Your task to perform on an android device: change the clock display to show seconds Image 0: 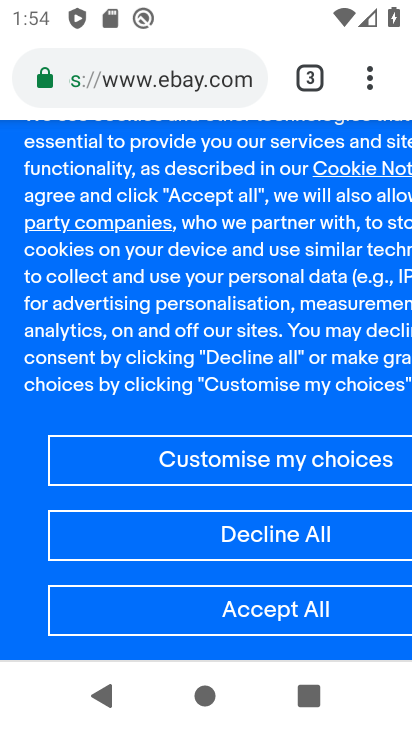
Step 0: press home button
Your task to perform on an android device: change the clock display to show seconds Image 1: 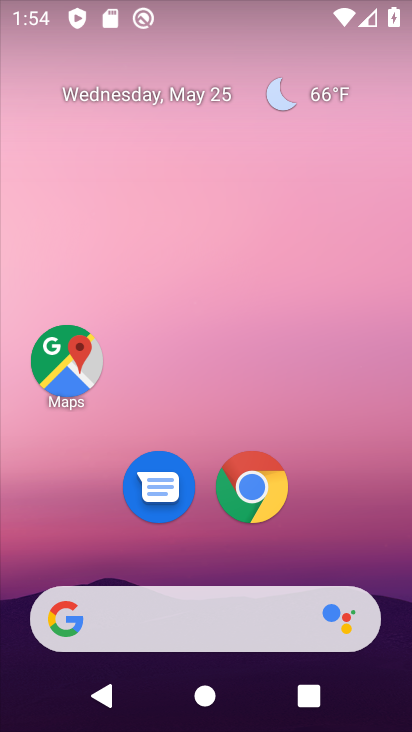
Step 1: drag from (183, 547) to (201, 61)
Your task to perform on an android device: change the clock display to show seconds Image 2: 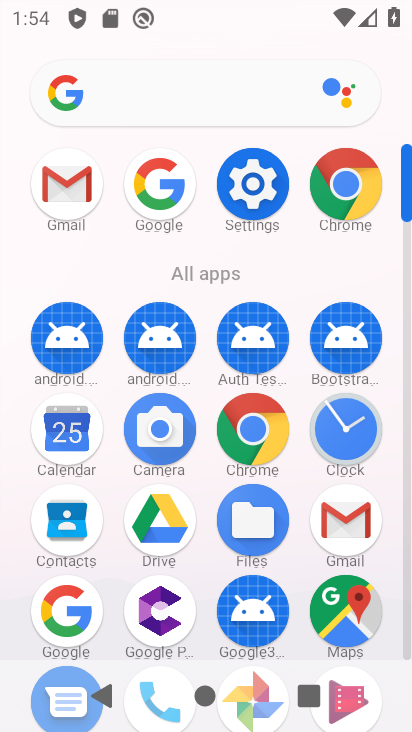
Step 2: click (339, 444)
Your task to perform on an android device: change the clock display to show seconds Image 3: 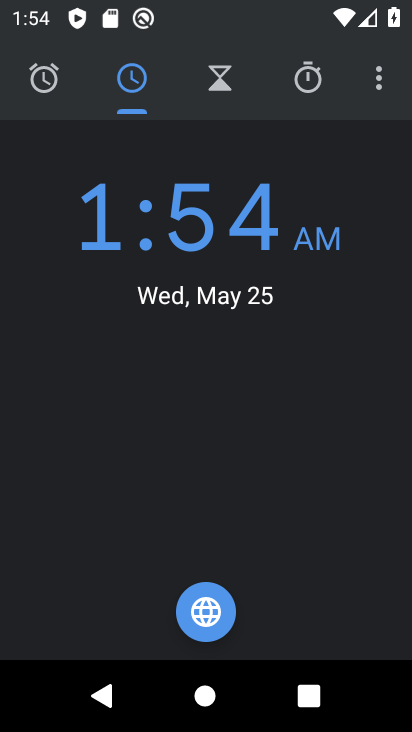
Step 3: click (379, 88)
Your task to perform on an android device: change the clock display to show seconds Image 4: 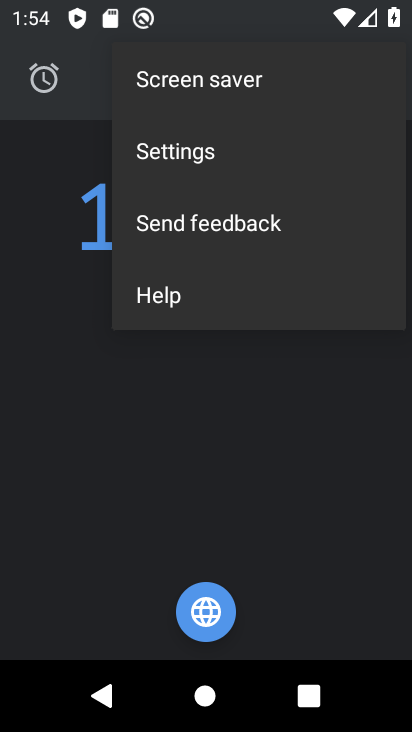
Step 4: click (163, 159)
Your task to perform on an android device: change the clock display to show seconds Image 5: 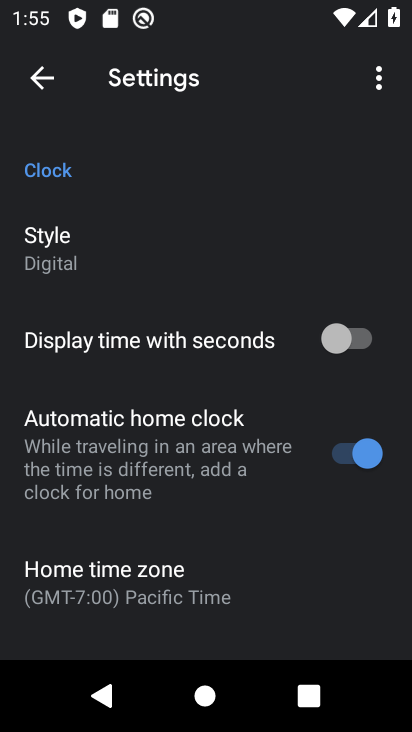
Step 5: click (357, 340)
Your task to perform on an android device: change the clock display to show seconds Image 6: 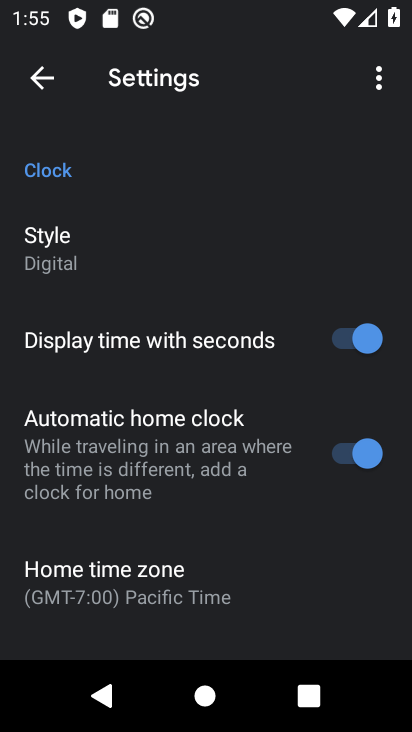
Step 6: task complete